Your task to perform on an android device: change the clock display to analog Image 0: 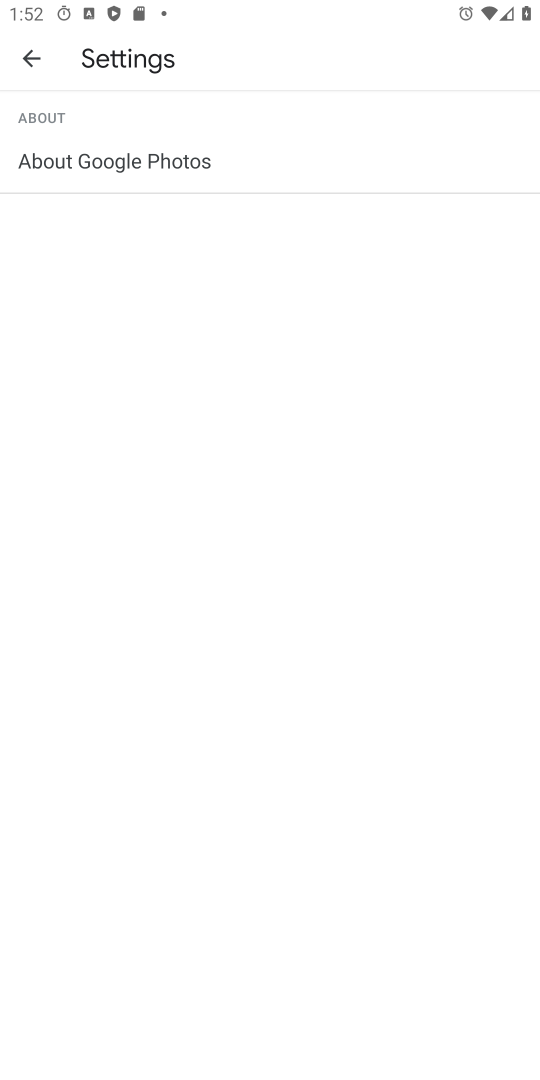
Step 0: press home button
Your task to perform on an android device: change the clock display to analog Image 1: 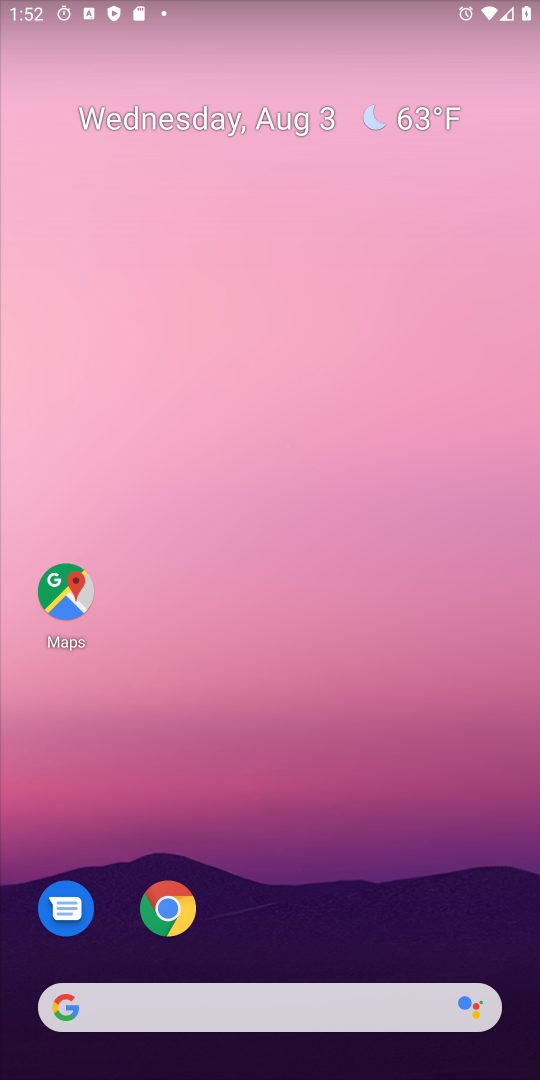
Step 1: drag from (320, 719) to (346, 38)
Your task to perform on an android device: change the clock display to analog Image 2: 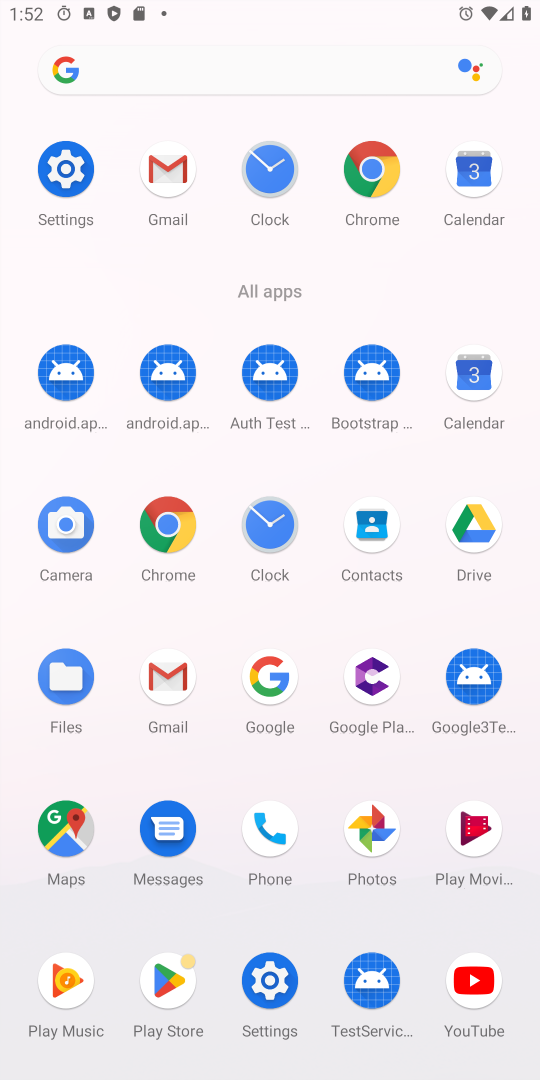
Step 2: click (275, 1002)
Your task to perform on an android device: change the clock display to analog Image 3: 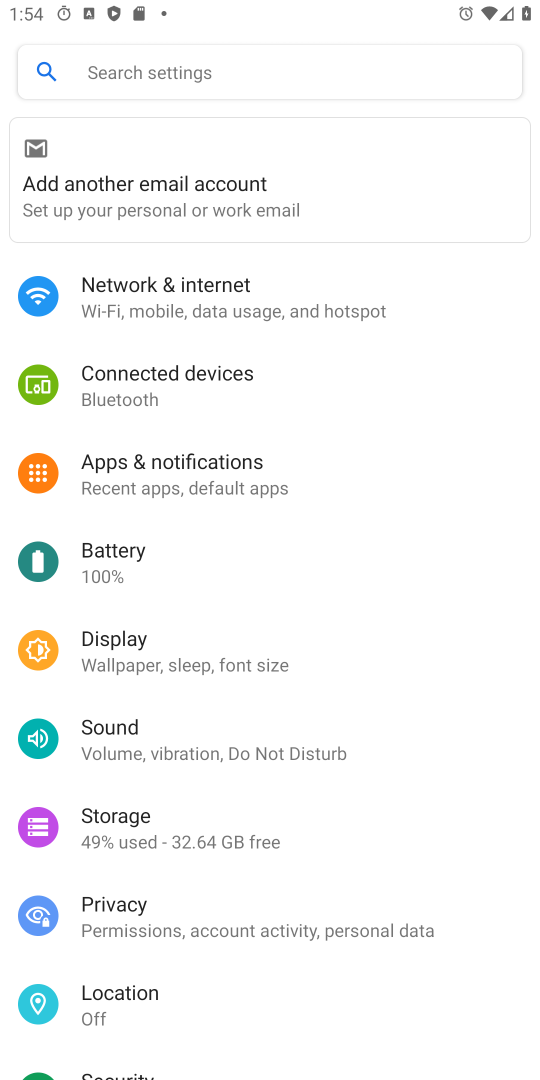
Step 3: press home button
Your task to perform on an android device: change the clock display to analog Image 4: 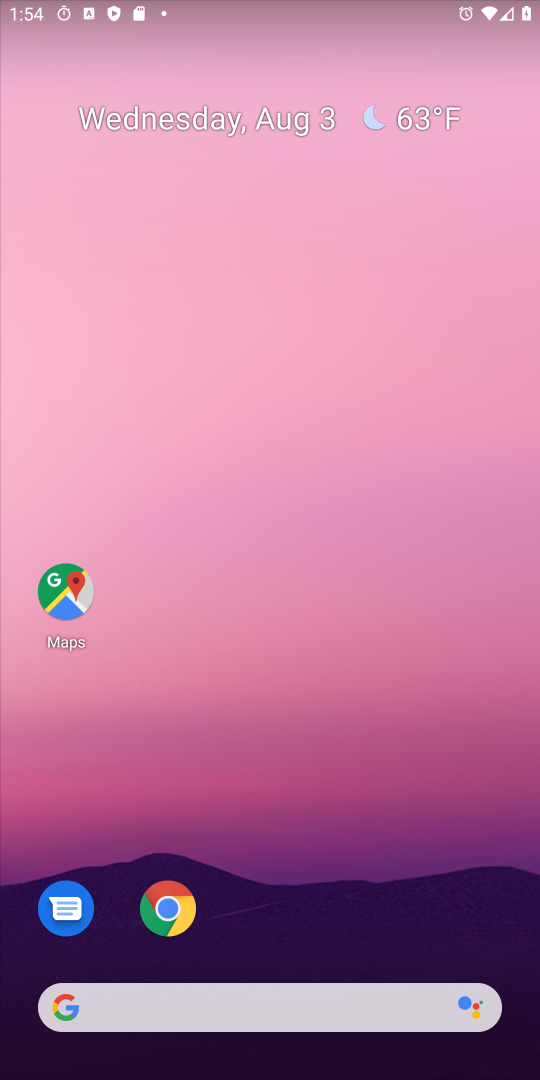
Step 4: drag from (308, 767) to (435, 12)
Your task to perform on an android device: change the clock display to analog Image 5: 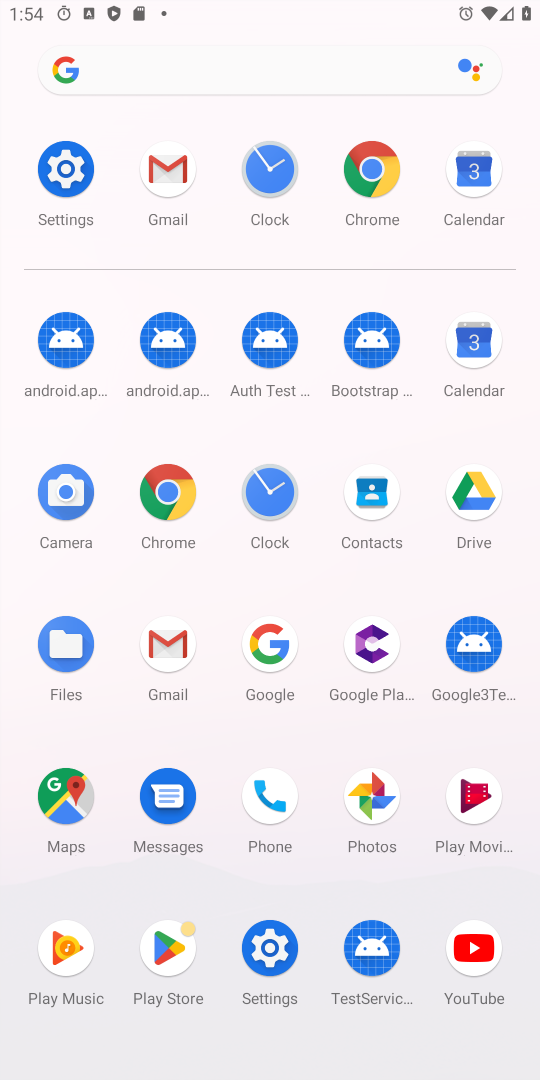
Step 5: click (286, 507)
Your task to perform on an android device: change the clock display to analog Image 6: 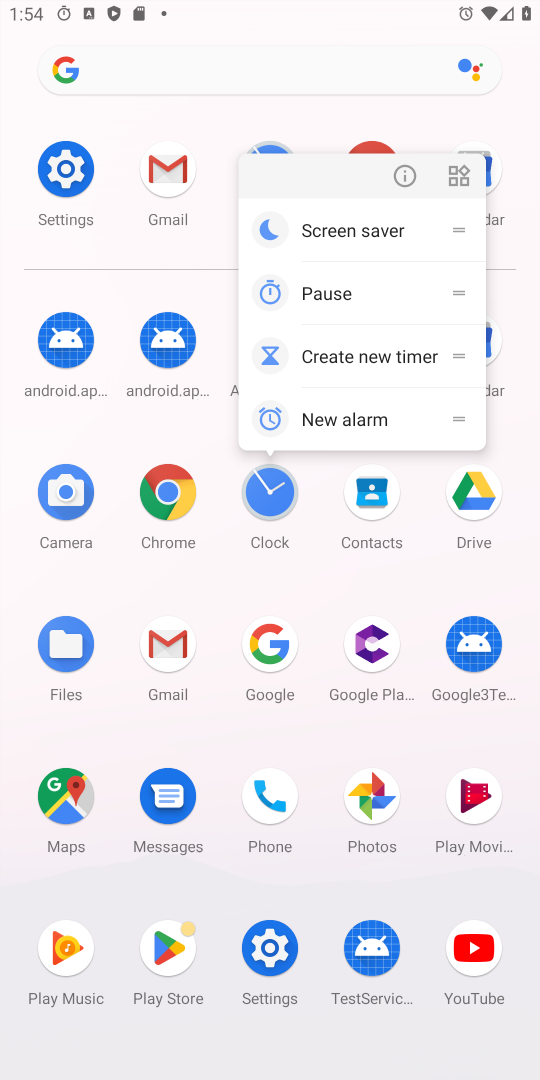
Step 6: click (276, 508)
Your task to perform on an android device: change the clock display to analog Image 7: 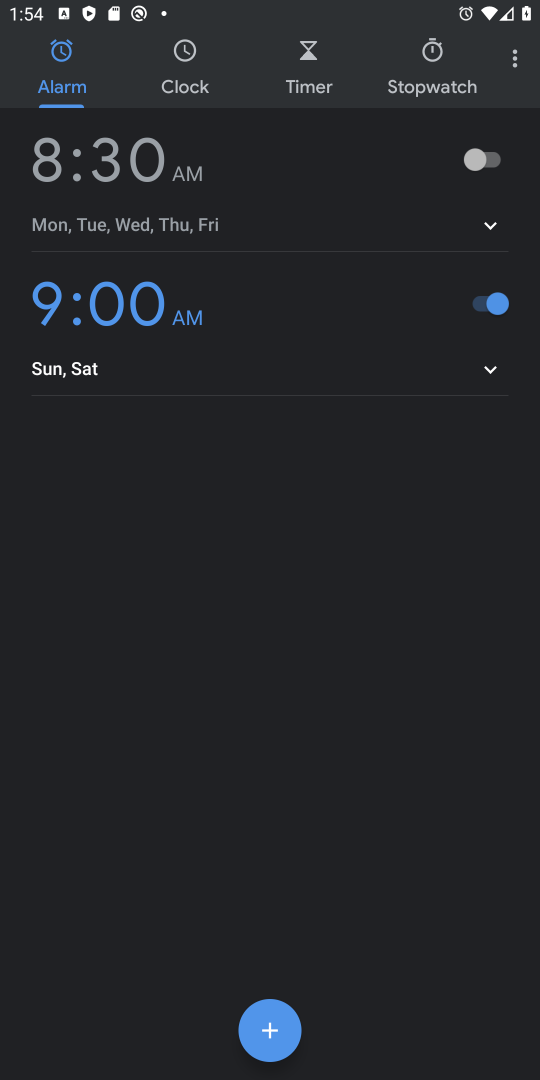
Step 7: click (513, 52)
Your task to perform on an android device: change the clock display to analog Image 8: 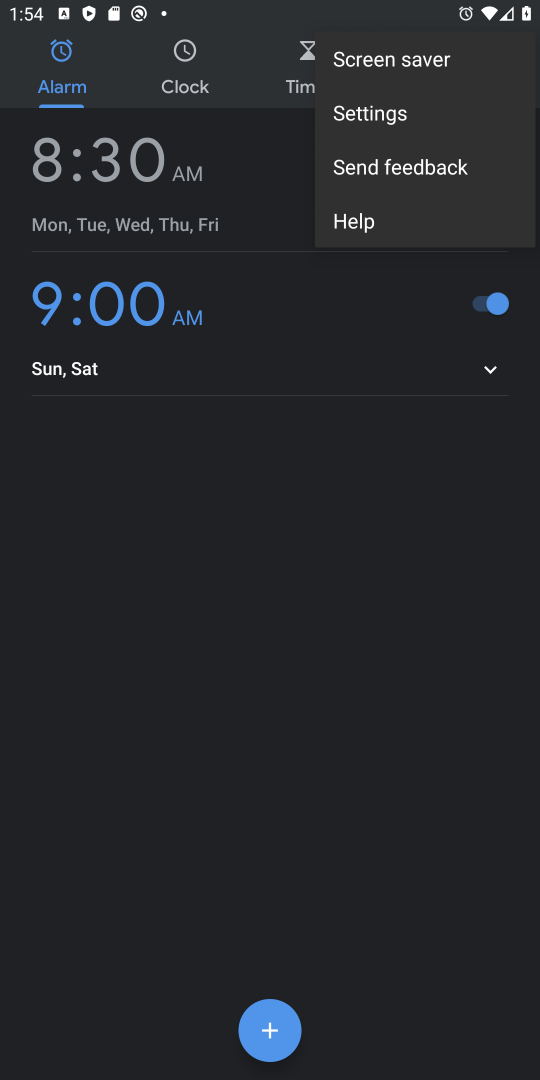
Step 8: click (433, 119)
Your task to perform on an android device: change the clock display to analog Image 9: 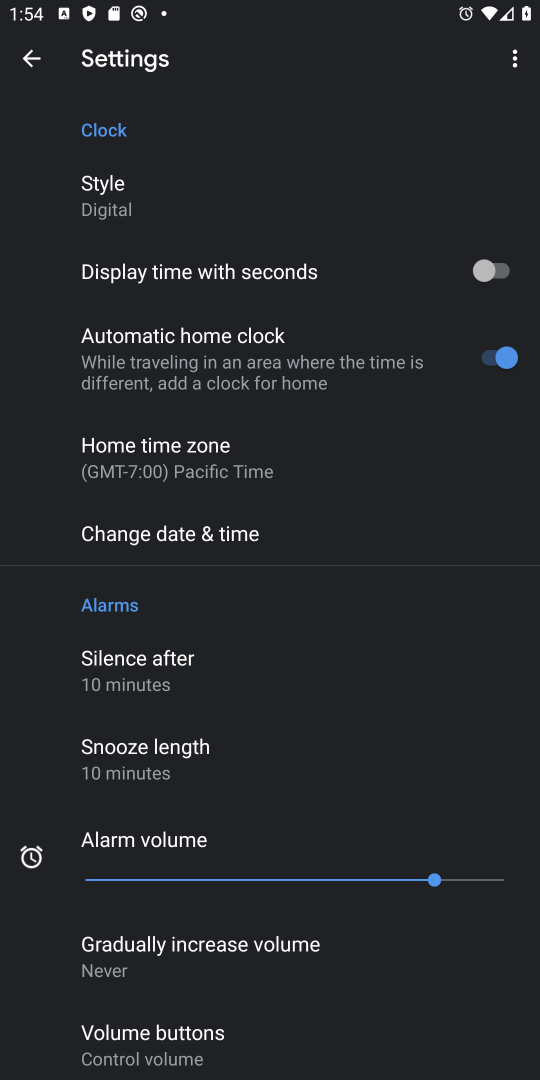
Step 9: click (235, 212)
Your task to perform on an android device: change the clock display to analog Image 10: 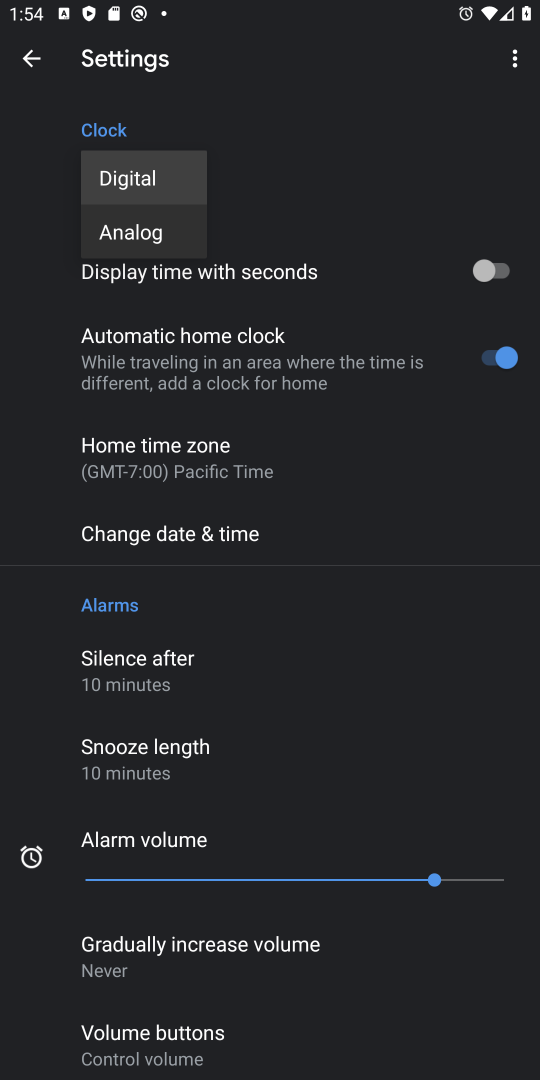
Step 10: click (160, 237)
Your task to perform on an android device: change the clock display to analog Image 11: 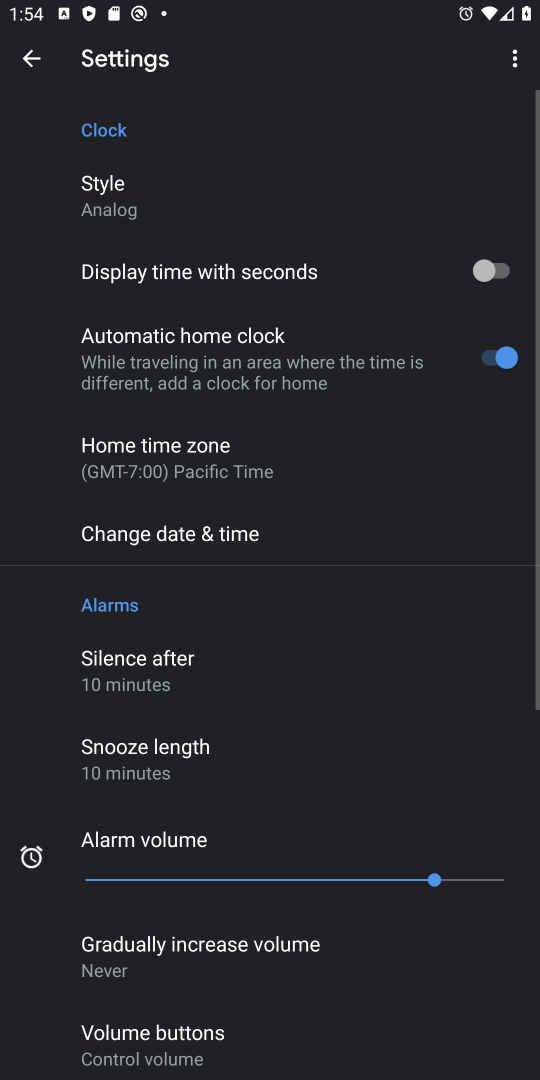
Step 11: task complete